Your task to perform on an android device: check android version Image 0: 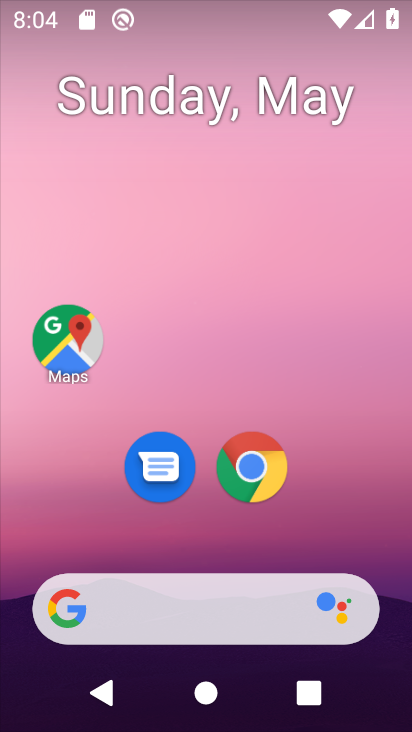
Step 0: drag from (349, 524) to (315, 154)
Your task to perform on an android device: check android version Image 1: 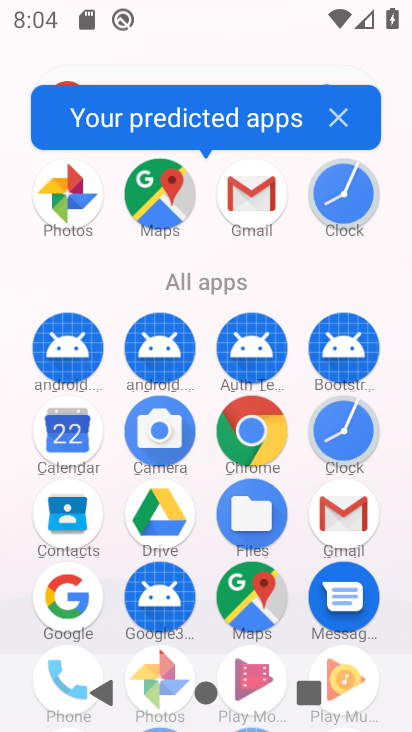
Step 1: drag from (201, 607) to (194, 322)
Your task to perform on an android device: check android version Image 2: 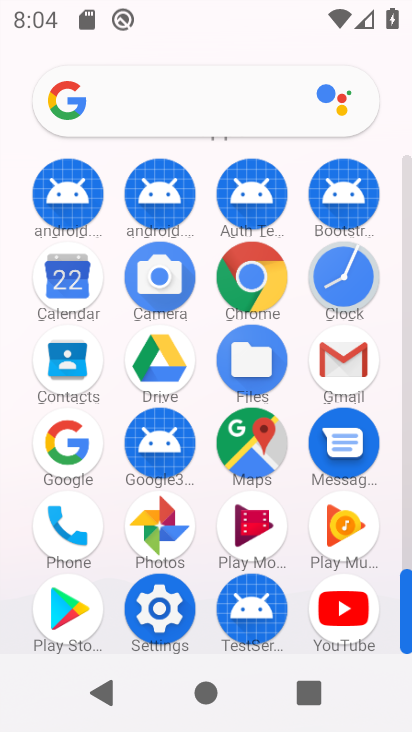
Step 2: click (170, 623)
Your task to perform on an android device: check android version Image 3: 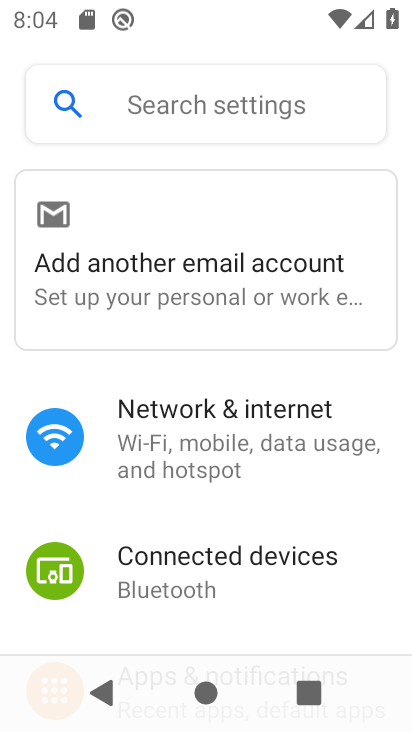
Step 3: drag from (293, 625) to (277, 78)
Your task to perform on an android device: check android version Image 4: 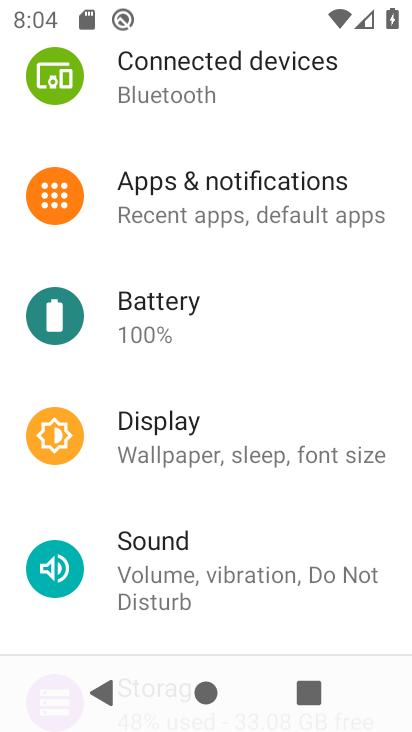
Step 4: drag from (289, 615) to (283, 125)
Your task to perform on an android device: check android version Image 5: 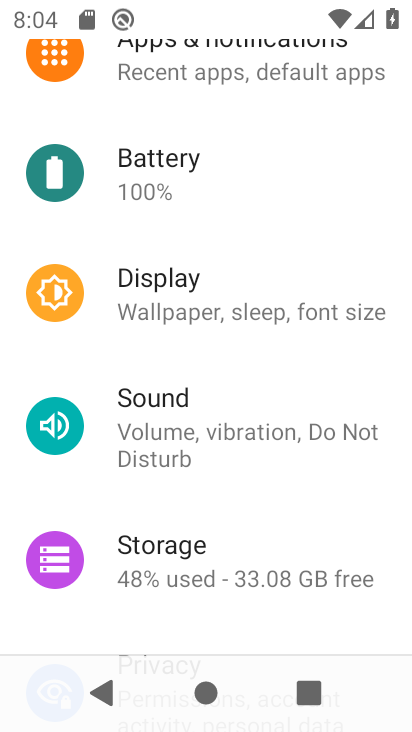
Step 5: drag from (311, 633) to (315, 91)
Your task to perform on an android device: check android version Image 6: 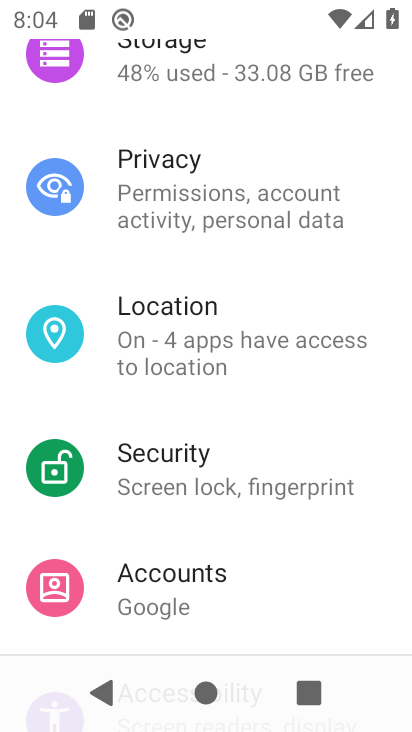
Step 6: drag from (279, 599) to (367, 47)
Your task to perform on an android device: check android version Image 7: 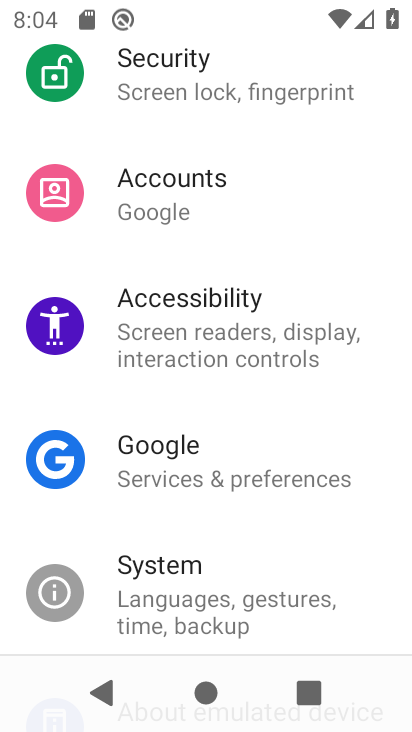
Step 7: click (202, 608)
Your task to perform on an android device: check android version Image 8: 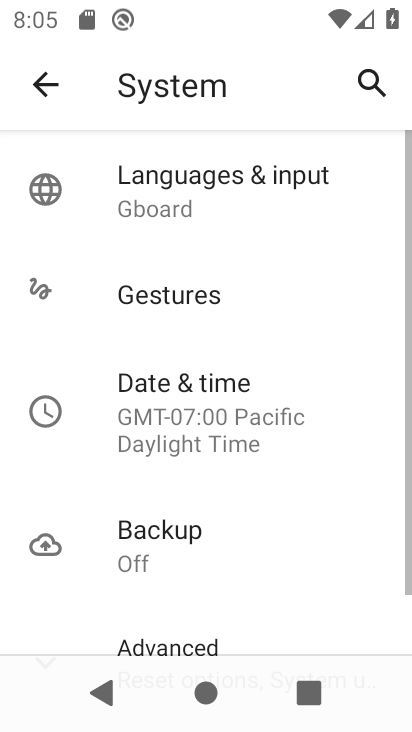
Step 8: drag from (299, 607) to (339, 143)
Your task to perform on an android device: check android version Image 9: 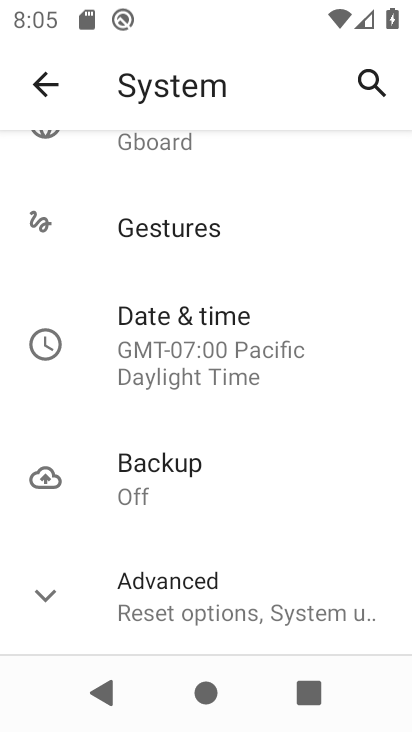
Step 9: click (46, 87)
Your task to perform on an android device: check android version Image 10: 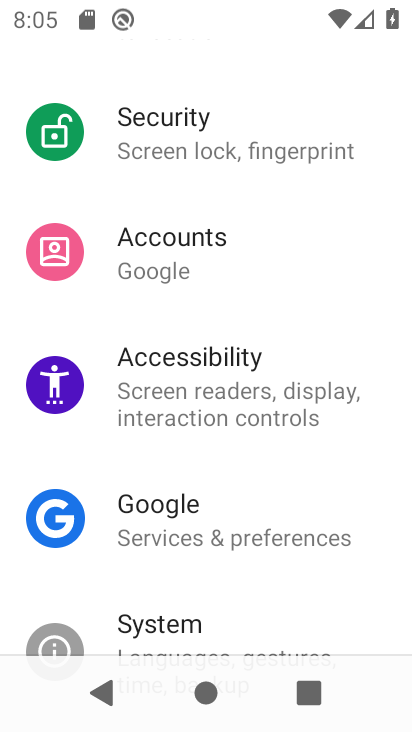
Step 10: drag from (284, 566) to (342, 154)
Your task to perform on an android device: check android version Image 11: 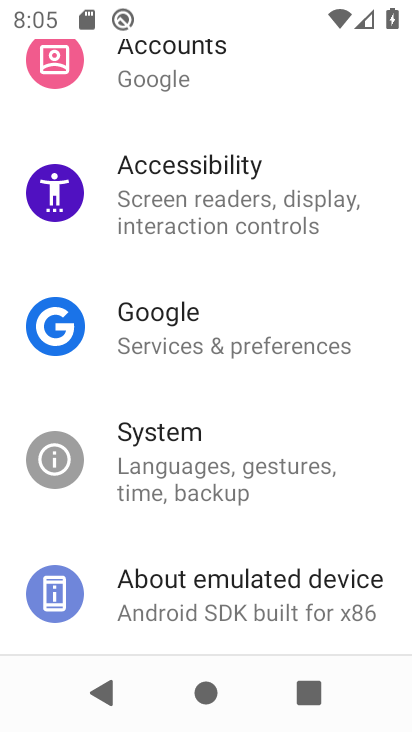
Step 11: drag from (250, 530) to (305, 188)
Your task to perform on an android device: check android version Image 12: 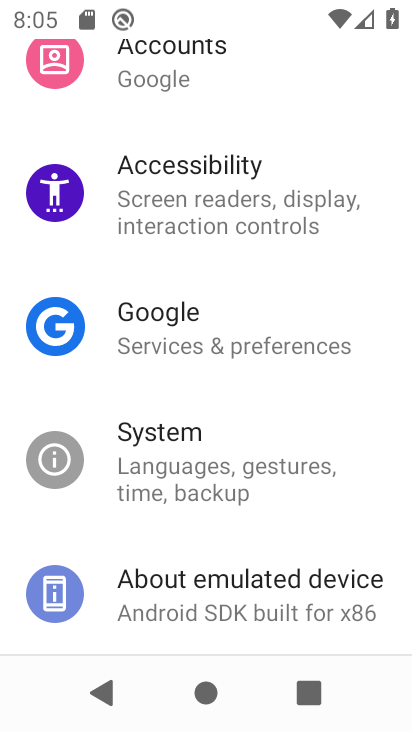
Step 12: click (268, 582)
Your task to perform on an android device: check android version Image 13: 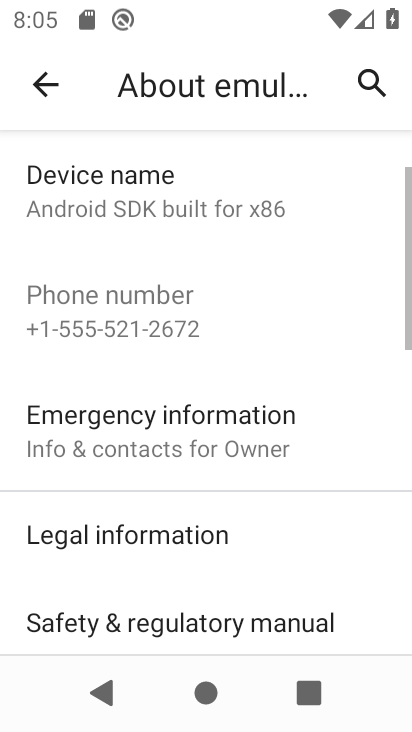
Step 13: drag from (212, 583) to (340, 93)
Your task to perform on an android device: check android version Image 14: 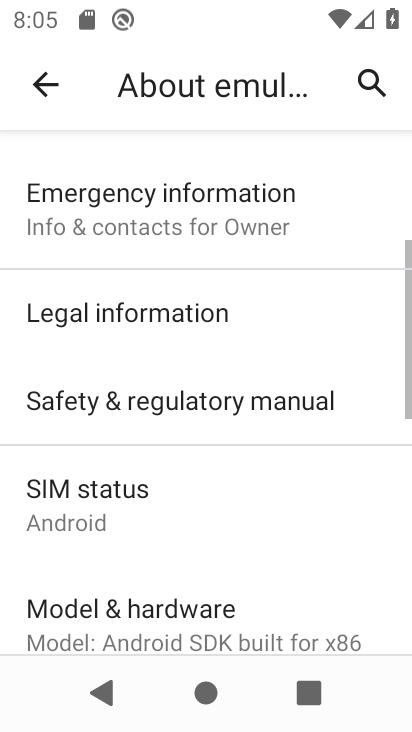
Step 14: drag from (238, 556) to (316, 90)
Your task to perform on an android device: check android version Image 15: 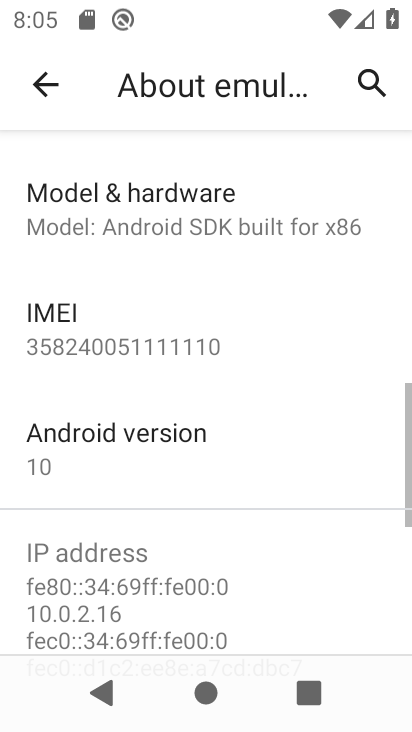
Step 15: click (146, 451)
Your task to perform on an android device: check android version Image 16: 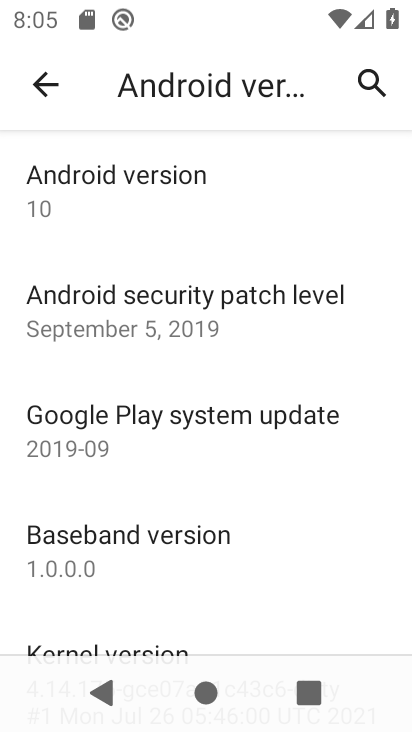
Step 16: task complete